Your task to perform on an android device: toggle data saver in the chrome app Image 0: 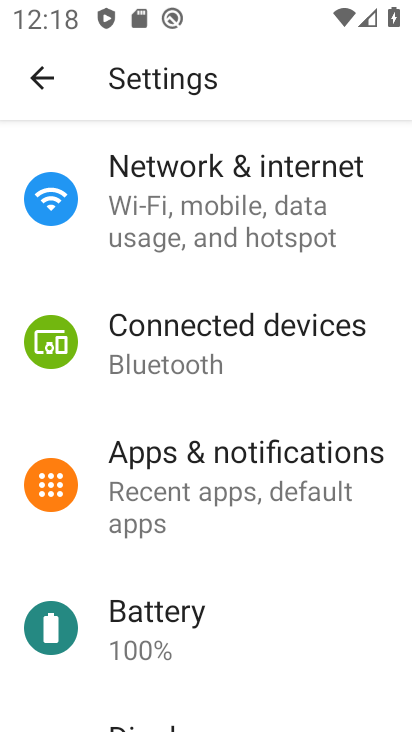
Step 0: drag from (289, 540) to (258, 173)
Your task to perform on an android device: toggle data saver in the chrome app Image 1: 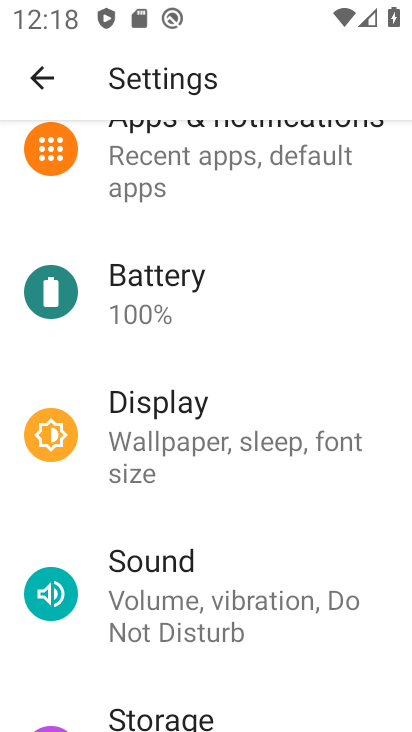
Step 1: drag from (287, 513) to (253, 191)
Your task to perform on an android device: toggle data saver in the chrome app Image 2: 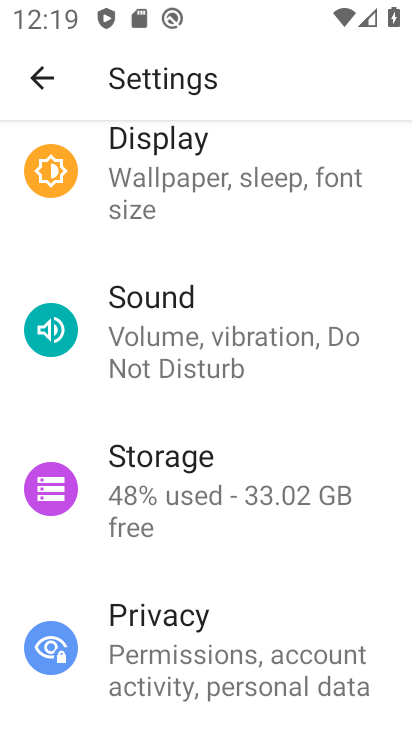
Step 2: press back button
Your task to perform on an android device: toggle data saver in the chrome app Image 3: 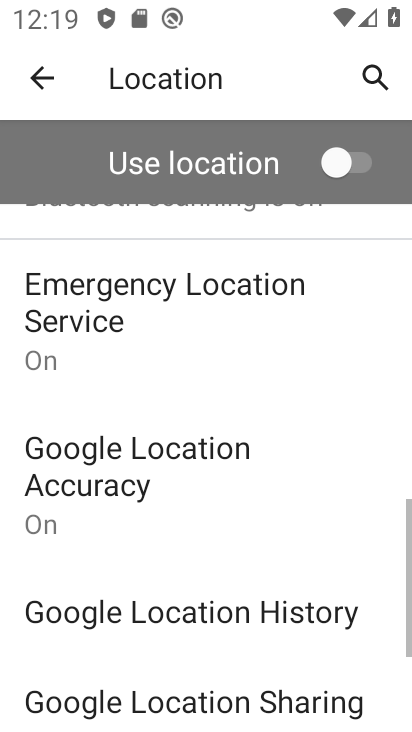
Step 3: press back button
Your task to perform on an android device: toggle data saver in the chrome app Image 4: 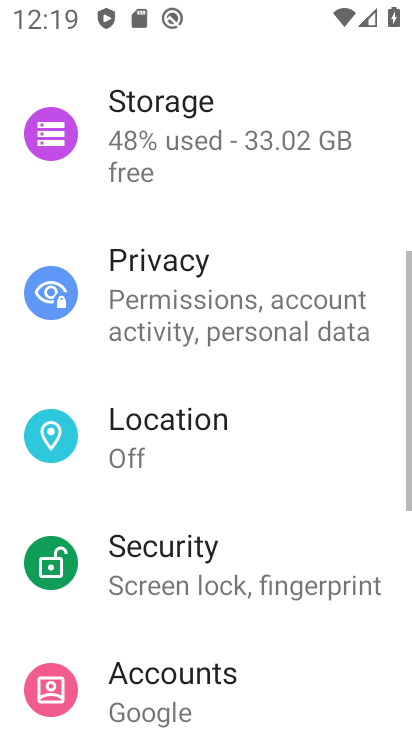
Step 4: press back button
Your task to perform on an android device: toggle data saver in the chrome app Image 5: 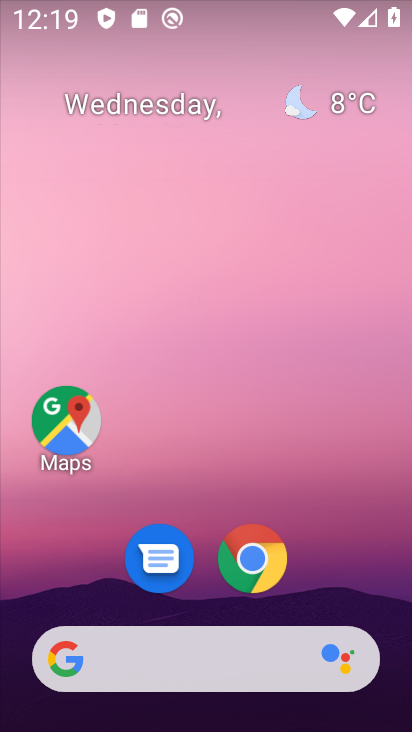
Step 5: drag from (286, 534) to (227, 17)
Your task to perform on an android device: toggle data saver in the chrome app Image 6: 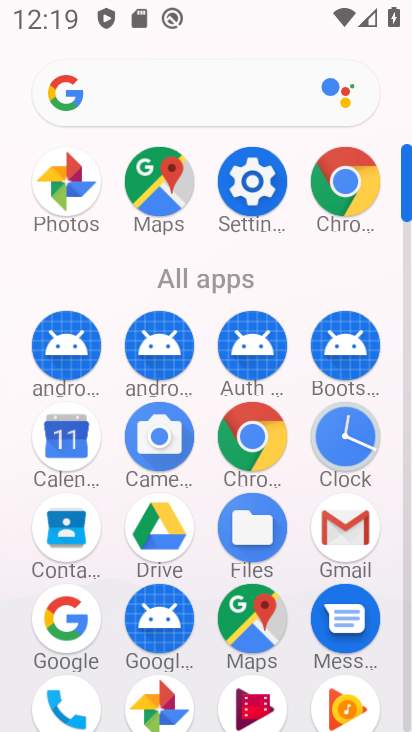
Step 6: click (343, 173)
Your task to perform on an android device: toggle data saver in the chrome app Image 7: 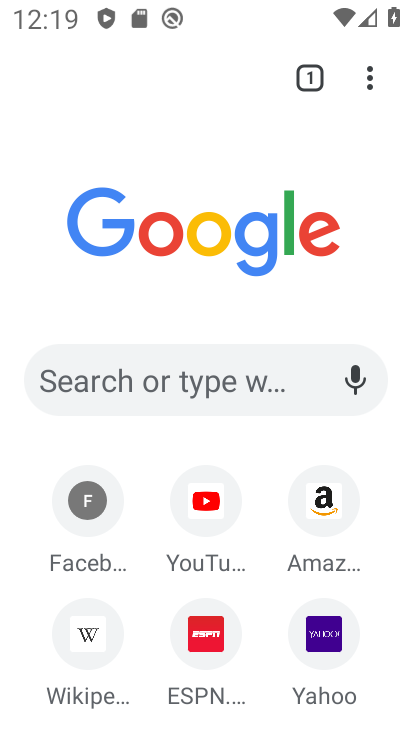
Step 7: drag from (365, 74) to (114, 616)
Your task to perform on an android device: toggle data saver in the chrome app Image 8: 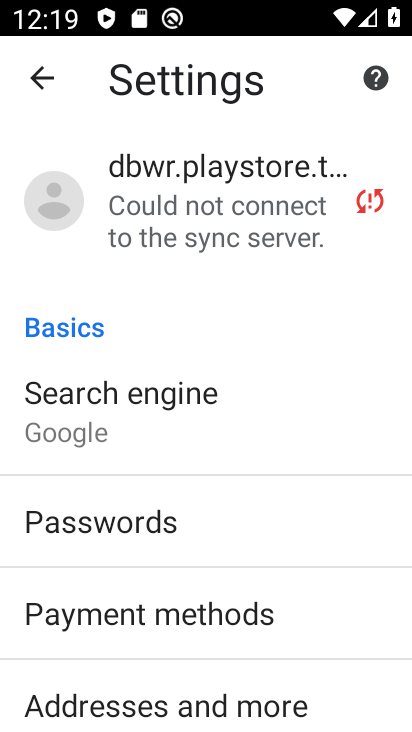
Step 8: drag from (293, 502) to (270, 253)
Your task to perform on an android device: toggle data saver in the chrome app Image 9: 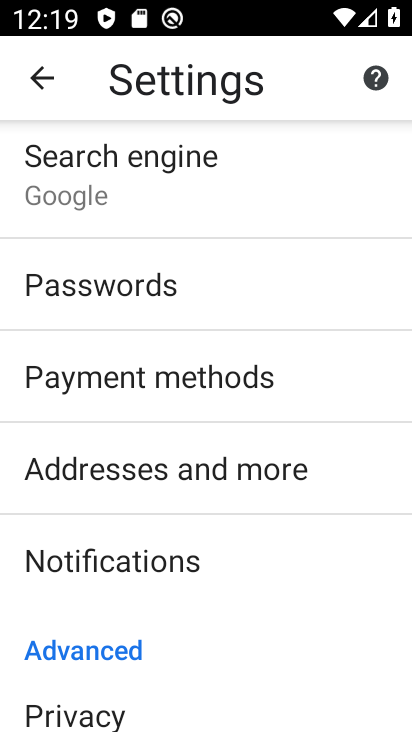
Step 9: drag from (253, 579) to (273, 172)
Your task to perform on an android device: toggle data saver in the chrome app Image 10: 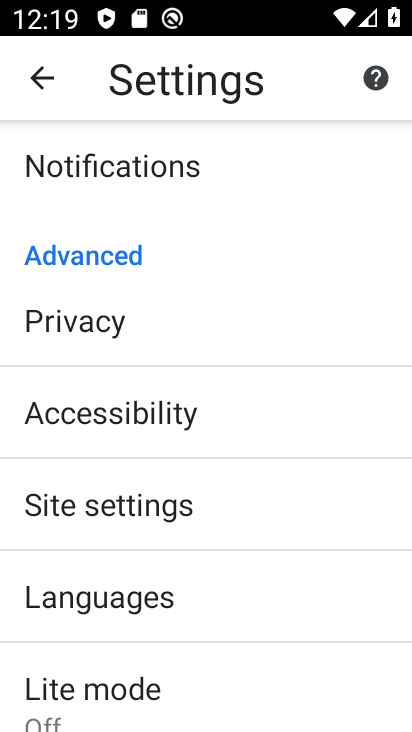
Step 10: drag from (235, 583) to (243, 224)
Your task to perform on an android device: toggle data saver in the chrome app Image 11: 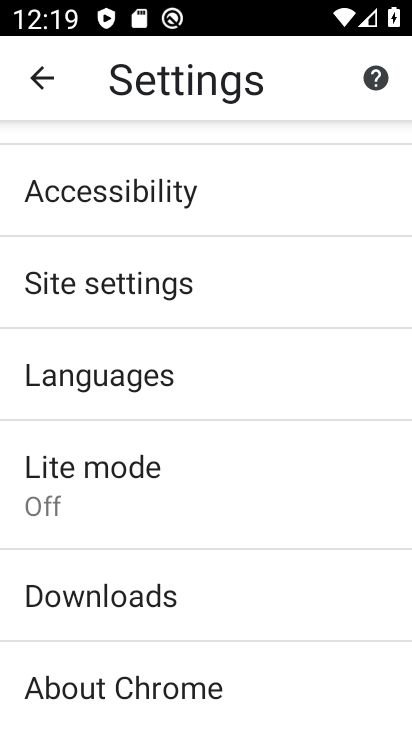
Step 11: click (182, 491)
Your task to perform on an android device: toggle data saver in the chrome app Image 12: 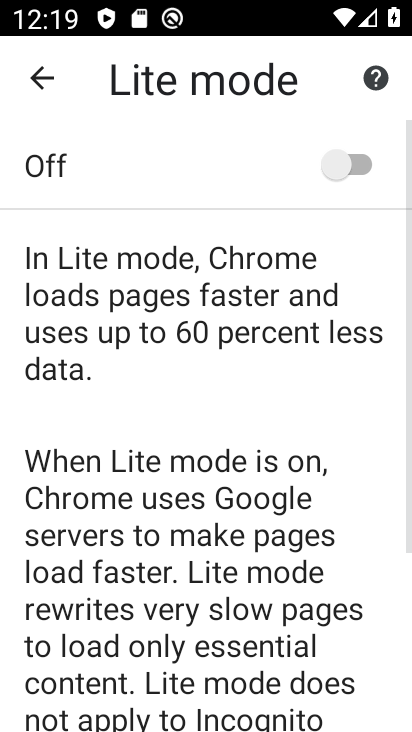
Step 12: click (352, 163)
Your task to perform on an android device: toggle data saver in the chrome app Image 13: 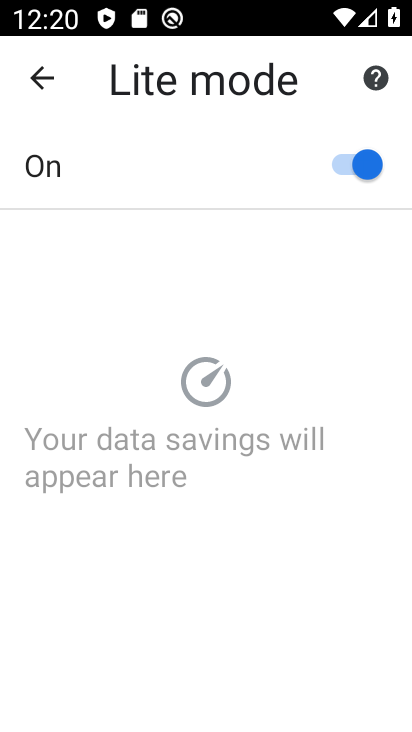
Step 13: task complete